Your task to perform on an android device: Open Google Maps and go to "Timeline" Image 0: 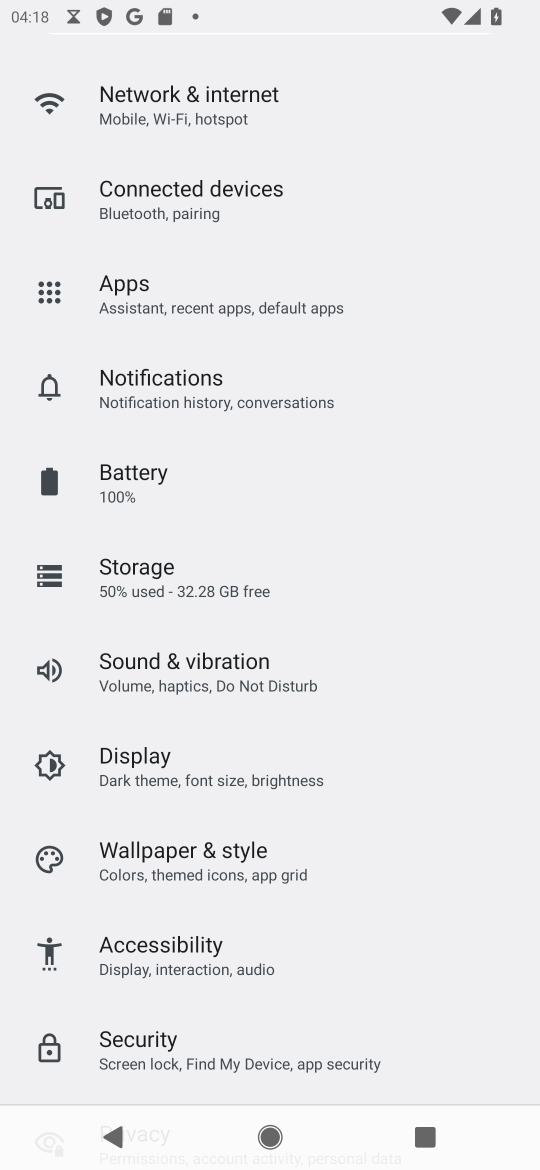
Step 0: press home button
Your task to perform on an android device: Open Google Maps and go to "Timeline" Image 1: 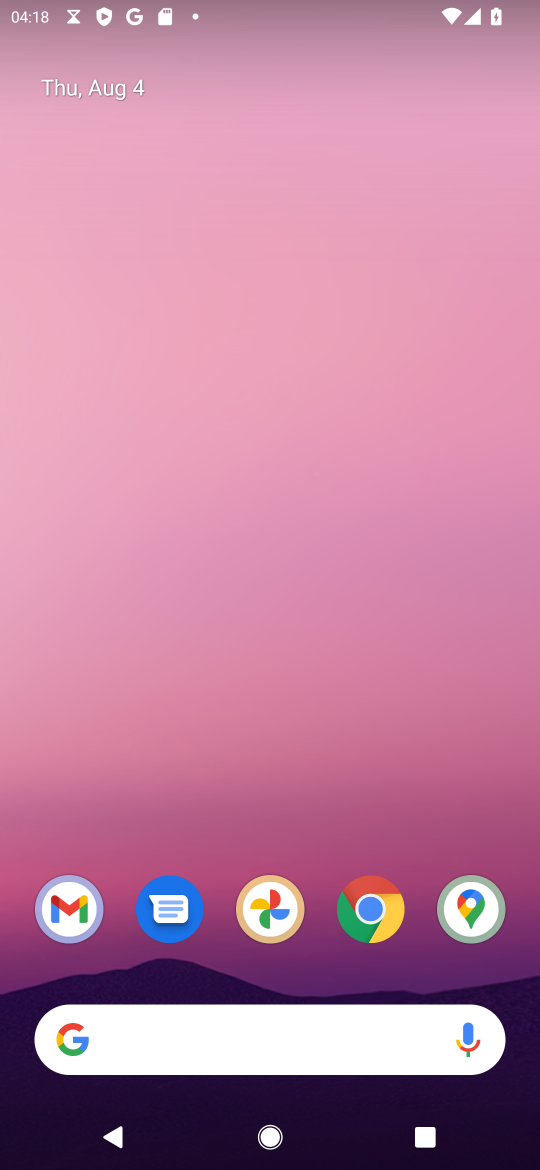
Step 1: drag from (269, 1049) to (364, 193)
Your task to perform on an android device: Open Google Maps and go to "Timeline" Image 2: 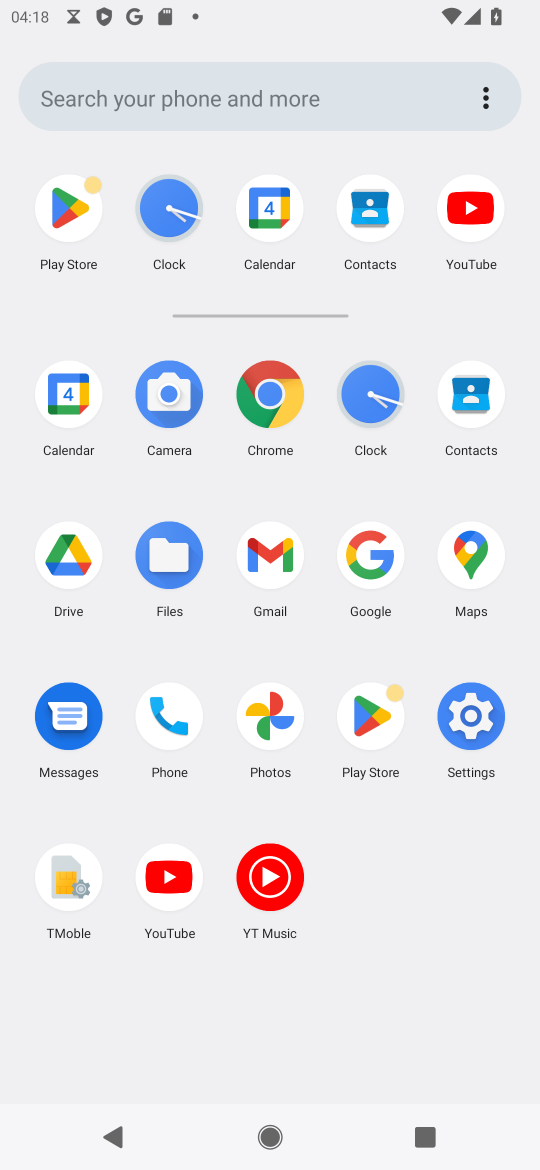
Step 2: click (469, 562)
Your task to perform on an android device: Open Google Maps and go to "Timeline" Image 3: 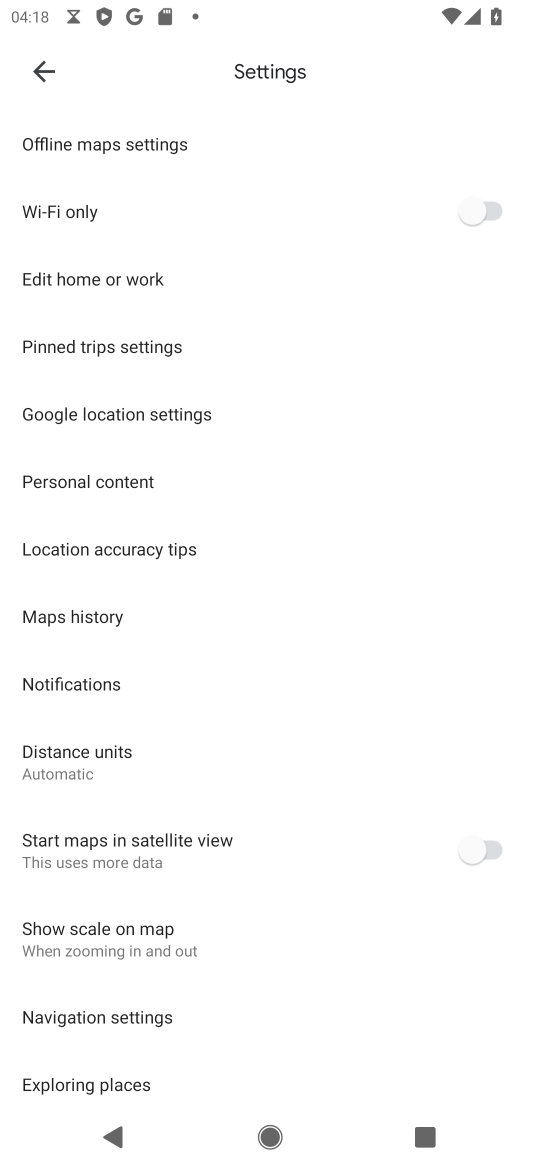
Step 3: click (34, 73)
Your task to perform on an android device: Open Google Maps and go to "Timeline" Image 4: 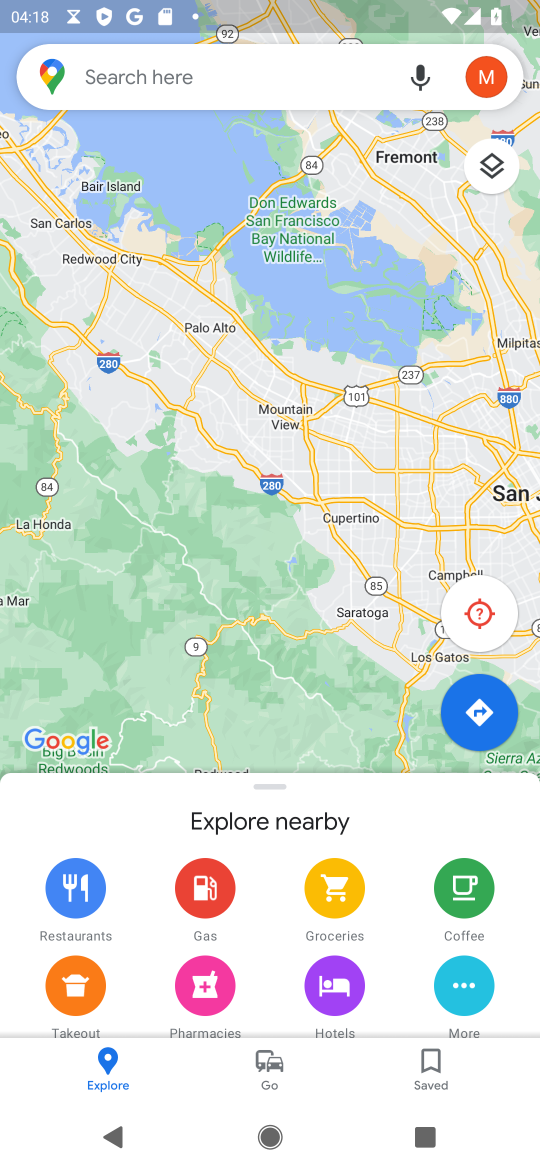
Step 4: click (480, 74)
Your task to perform on an android device: Open Google Maps and go to "Timeline" Image 5: 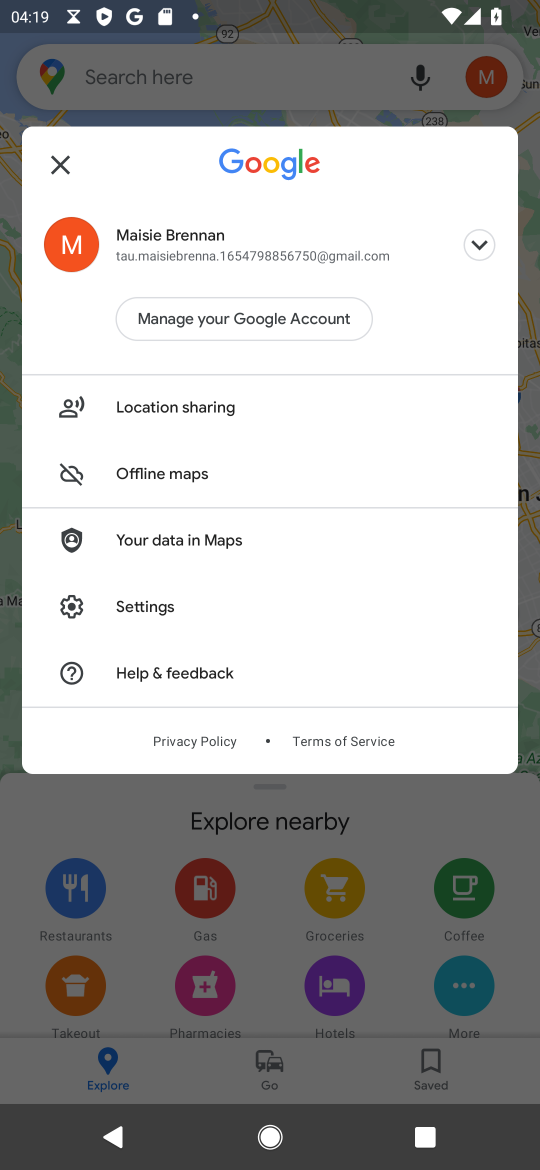
Step 5: task complete